Your task to perform on an android device: check data usage Image 0: 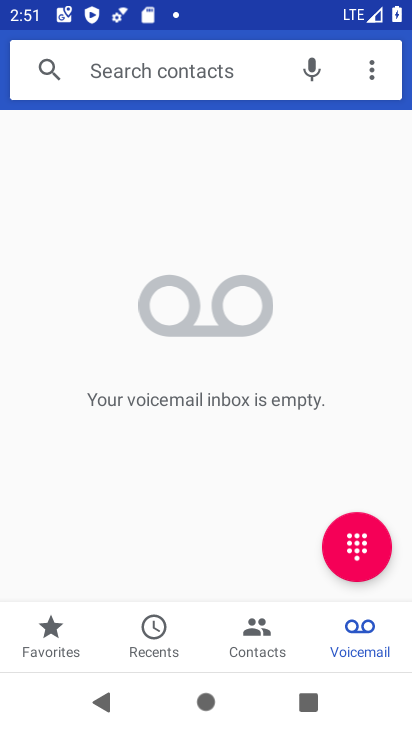
Step 0: press home button
Your task to perform on an android device: check data usage Image 1: 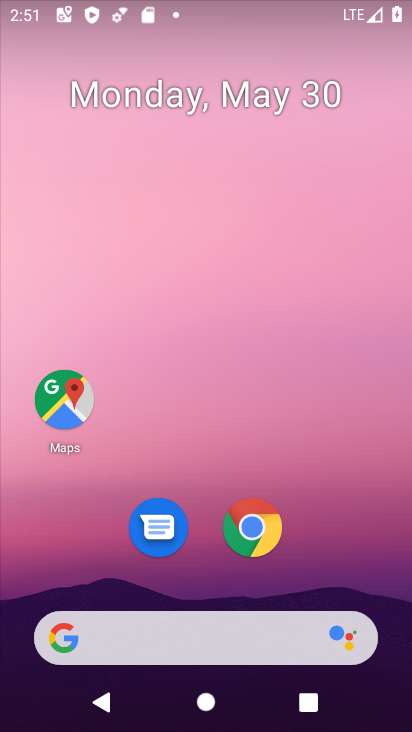
Step 1: drag from (284, 566) to (291, 36)
Your task to perform on an android device: check data usage Image 2: 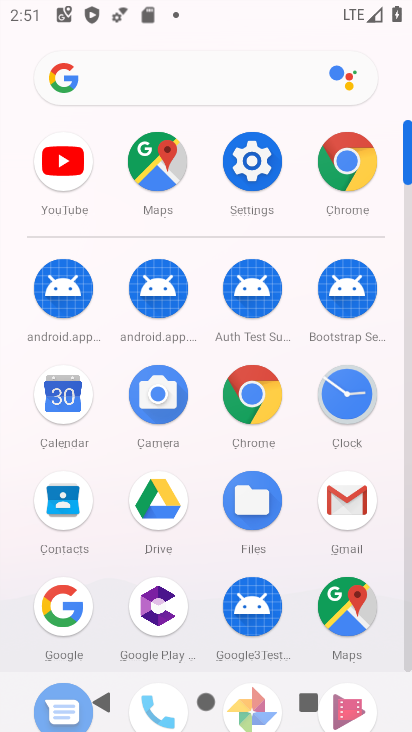
Step 2: drag from (189, 12) to (183, 533)
Your task to perform on an android device: check data usage Image 3: 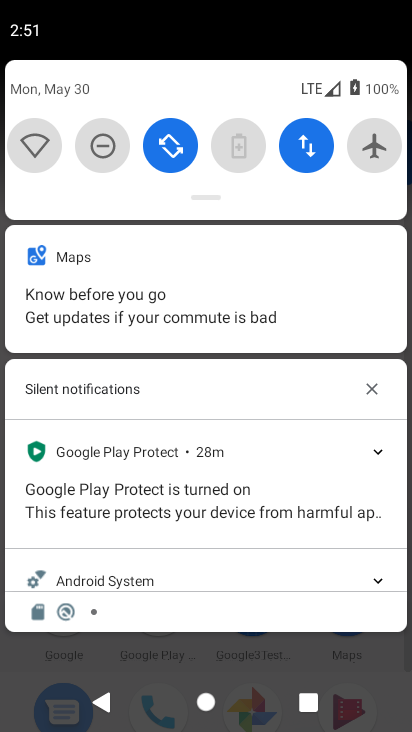
Step 3: click (306, 133)
Your task to perform on an android device: check data usage Image 4: 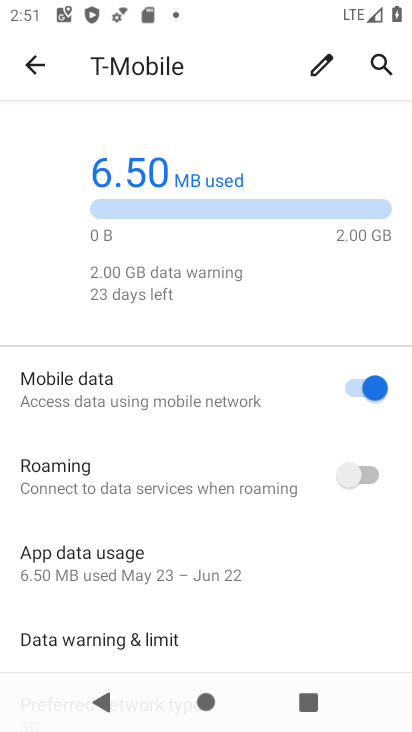
Step 4: task complete